Your task to perform on an android device: Turn off the flashlight Image 0: 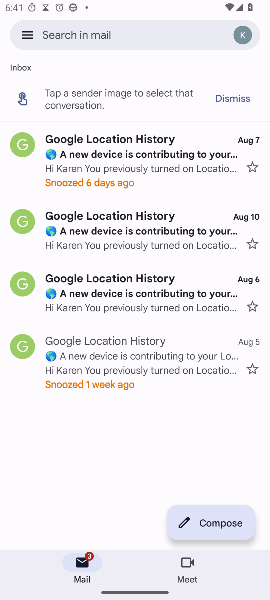
Step 0: press home button
Your task to perform on an android device: Turn off the flashlight Image 1: 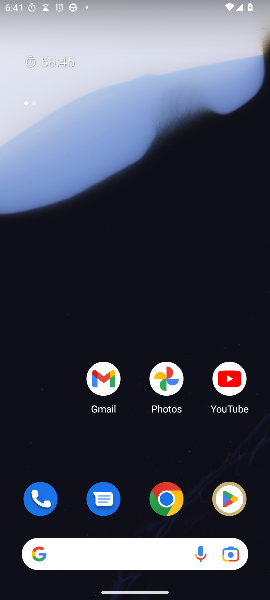
Step 1: drag from (103, 546) to (138, 2)
Your task to perform on an android device: Turn off the flashlight Image 2: 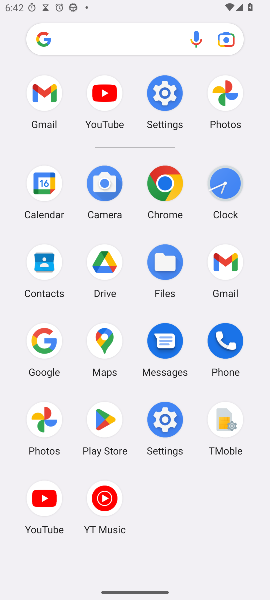
Step 2: click (178, 104)
Your task to perform on an android device: Turn off the flashlight Image 3: 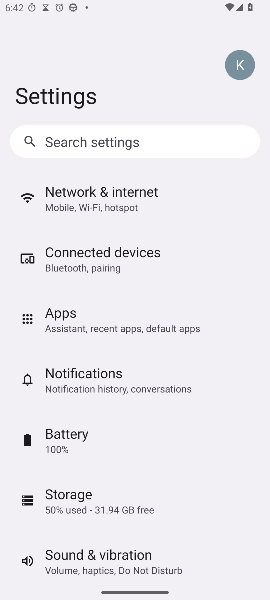
Step 3: task complete